Your task to perform on an android device: clear history in the chrome app Image 0: 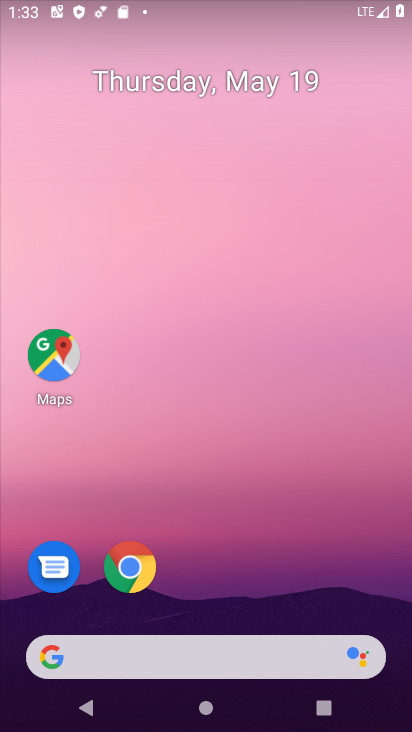
Step 0: drag from (49, 477) to (286, 106)
Your task to perform on an android device: clear history in the chrome app Image 1: 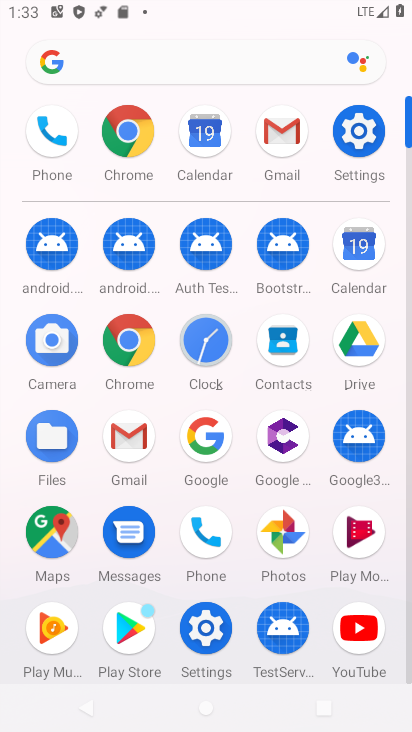
Step 1: click (133, 136)
Your task to perform on an android device: clear history in the chrome app Image 2: 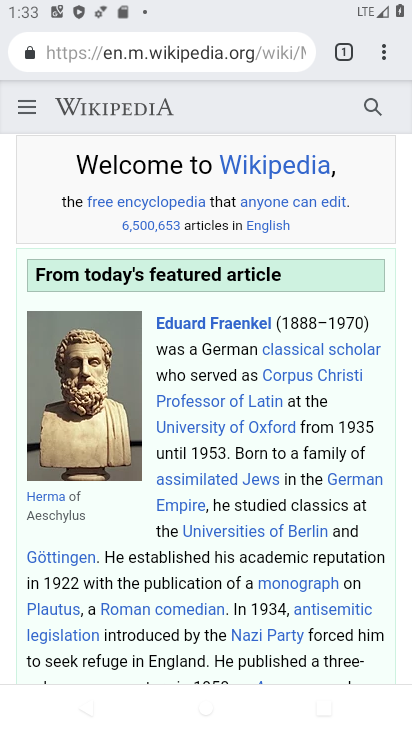
Step 2: click (383, 57)
Your task to perform on an android device: clear history in the chrome app Image 3: 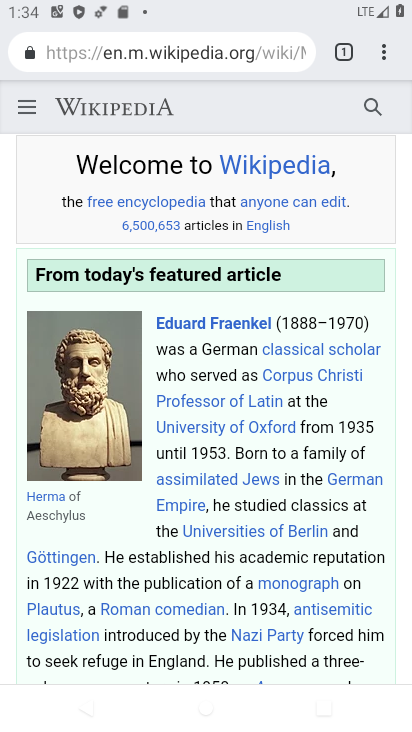
Step 3: click (378, 50)
Your task to perform on an android device: clear history in the chrome app Image 4: 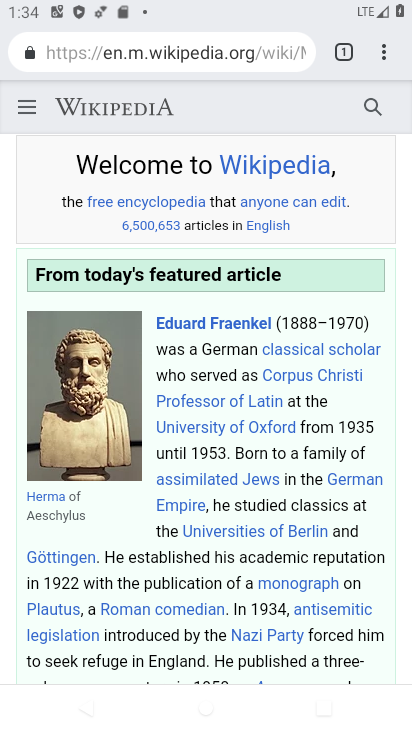
Step 4: click (390, 50)
Your task to perform on an android device: clear history in the chrome app Image 5: 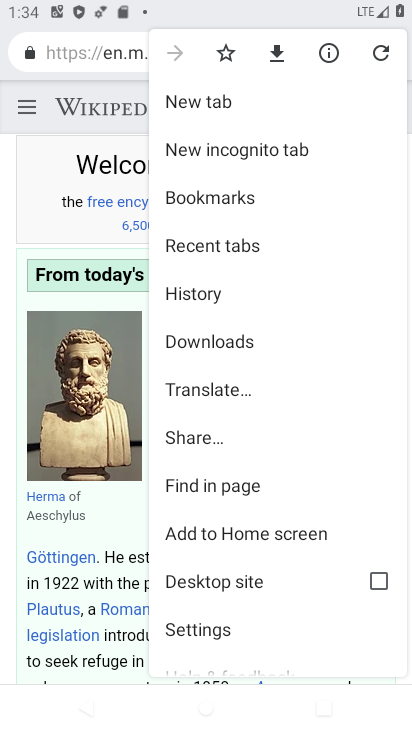
Step 5: click (191, 625)
Your task to perform on an android device: clear history in the chrome app Image 6: 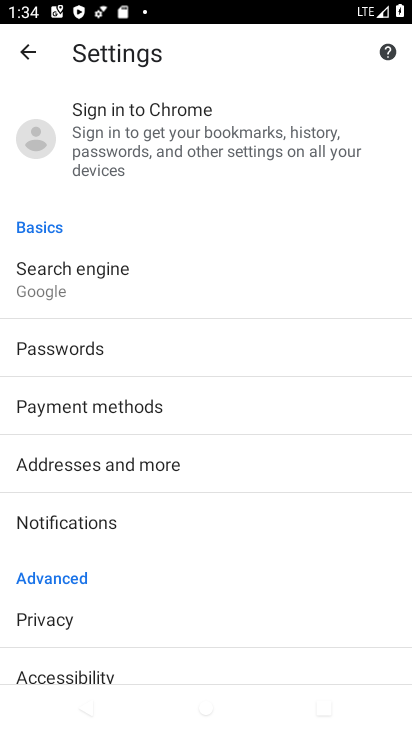
Step 6: drag from (0, 661) to (160, 279)
Your task to perform on an android device: clear history in the chrome app Image 7: 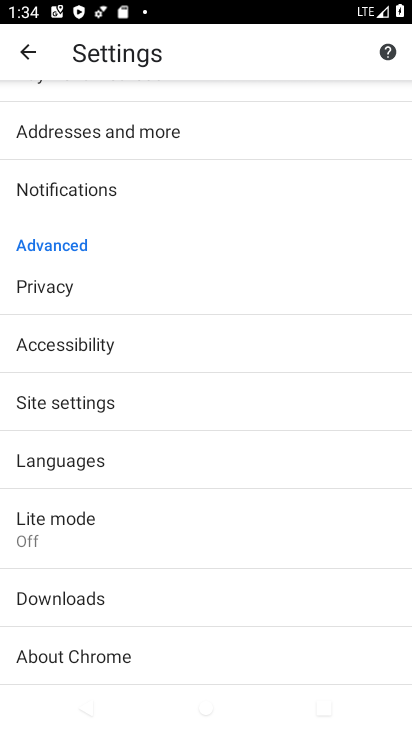
Step 7: click (123, 406)
Your task to perform on an android device: clear history in the chrome app Image 8: 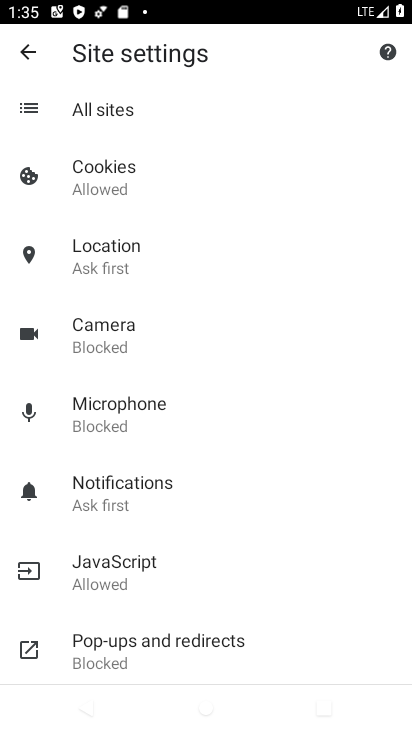
Step 8: press back button
Your task to perform on an android device: clear history in the chrome app Image 9: 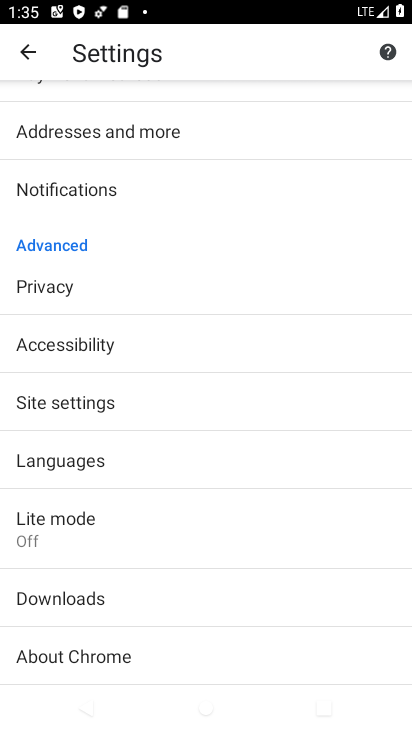
Step 9: press back button
Your task to perform on an android device: clear history in the chrome app Image 10: 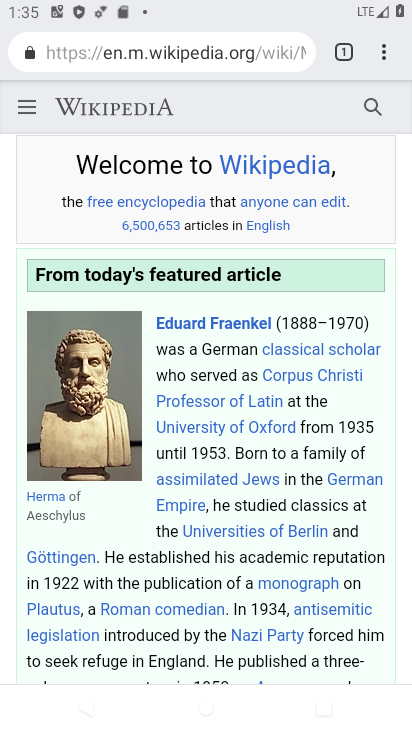
Step 10: click (384, 55)
Your task to perform on an android device: clear history in the chrome app Image 11: 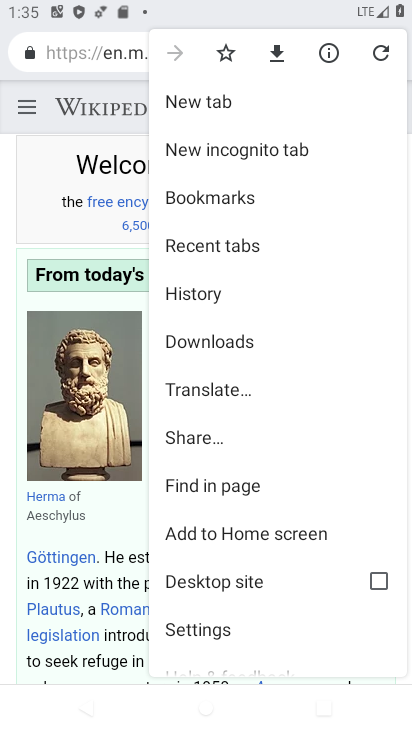
Step 11: click (192, 290)
Your task to perform on an android device: clear history in the chrome app Image 12: 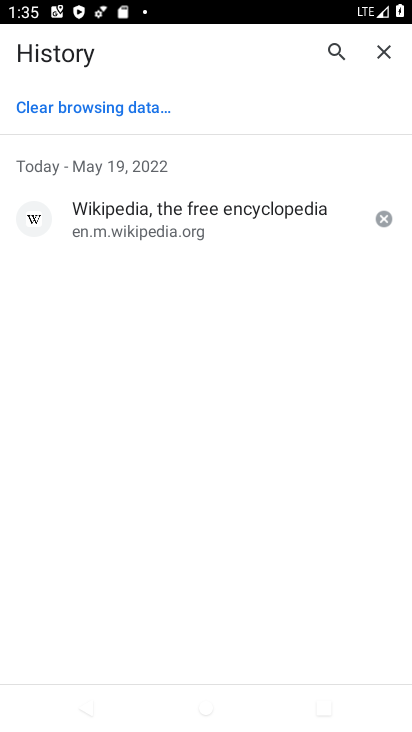
Step 12: click (109, 108)
Your task to perform on an android device: clear history in the chrome app Image 13: 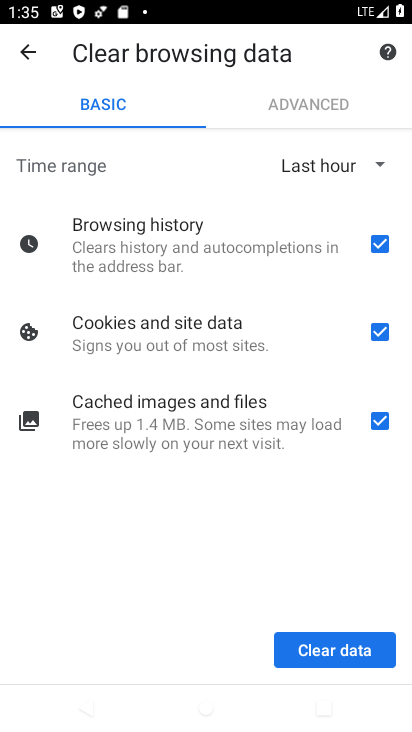
Step 13: click (342, 645)
Your task to perform on an android device: clear history in the chrome app Image 14: 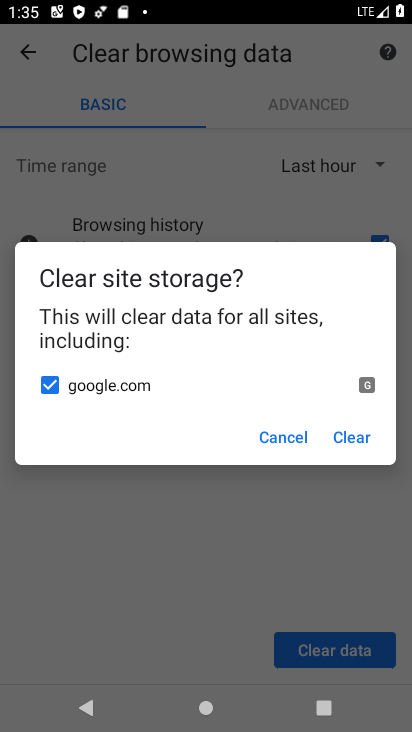
Step 14: click (369, 432)
Your task to perform on an android device: clear history in the chrome app Image 15: 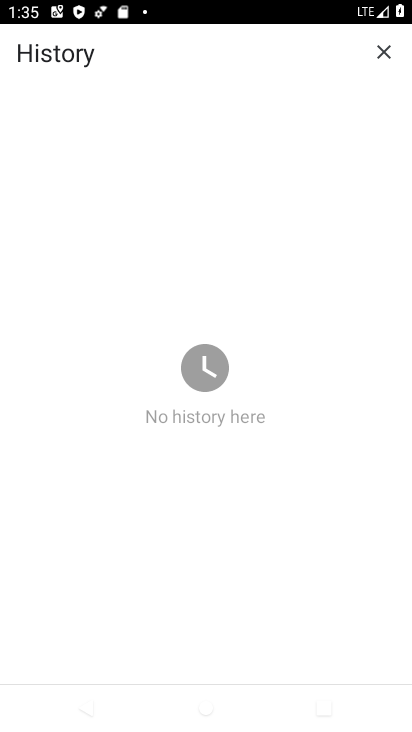
Step 15: task complete